Your task to perform on an android device: Open Yahoo.com Image 0: 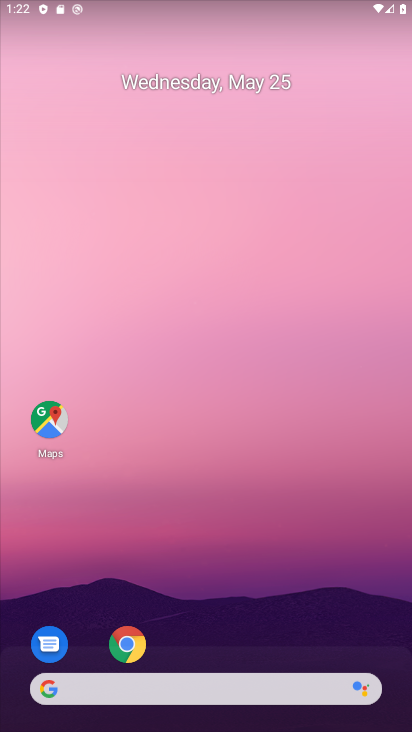
Step 0: drag from (367, 589) to (369, 270)
Your task to perform on an android device: Open Yahoo.com Image 1: 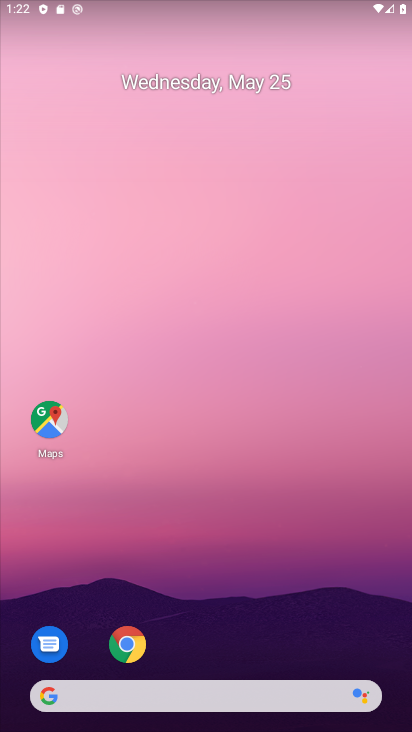
Step 1: drag from (367, 608) to (357, 323)
Your task to perform on an android device: Open Yahoo.com Image 2: 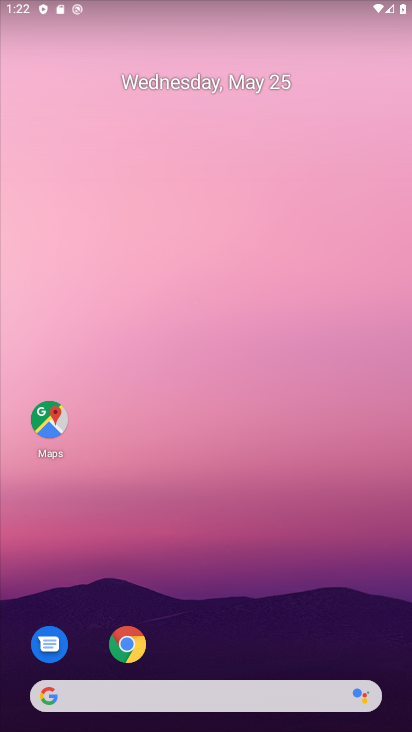
Step 2: drag from (362, 627) to (361, 266)
Your task to perform on an android device: Open Yahoo.com Image 3: 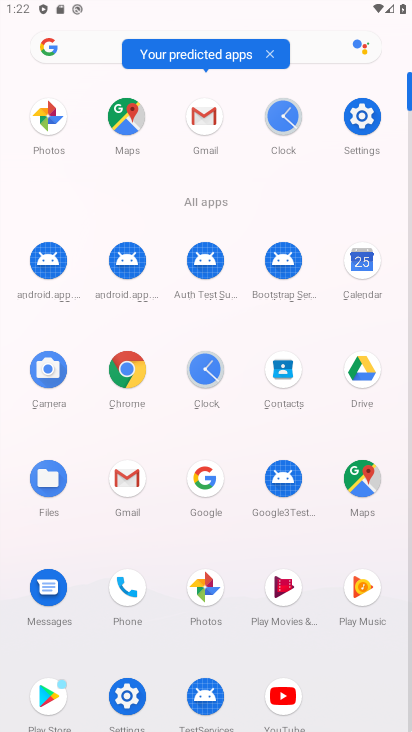
Step 3: click (141, 377)
Your task to perform on an android device: Open Yahoo.com Image 4: 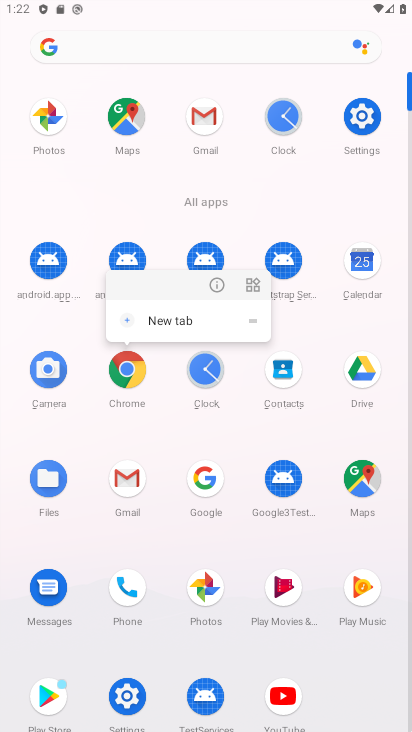
Step 4: click (133, 381)
Your task to perform on an android device: Open Yahoo.com Image 5: 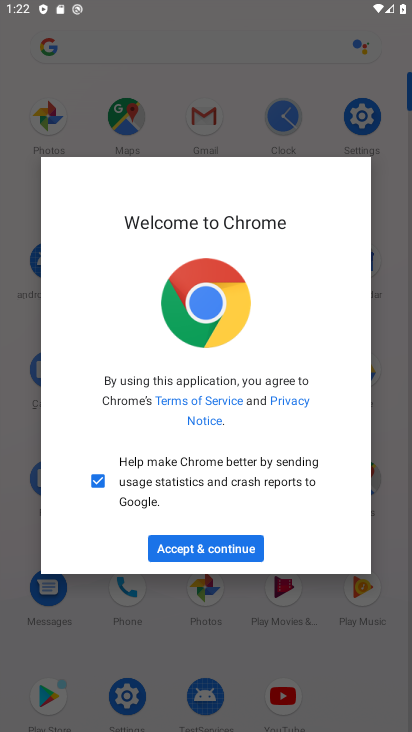
Step 5: click (192, 549)
Your task to perform on an android device: Open Yahoo.com Image 6: 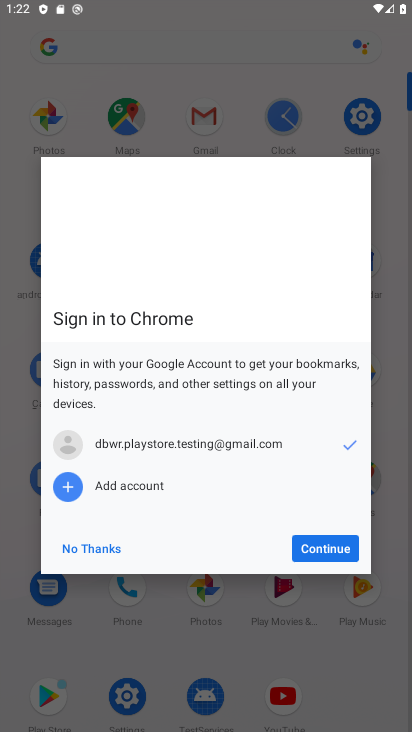
Step 6: click (331, 549)
Your task to perform on an android device: Open Yahoo.com Image 7: 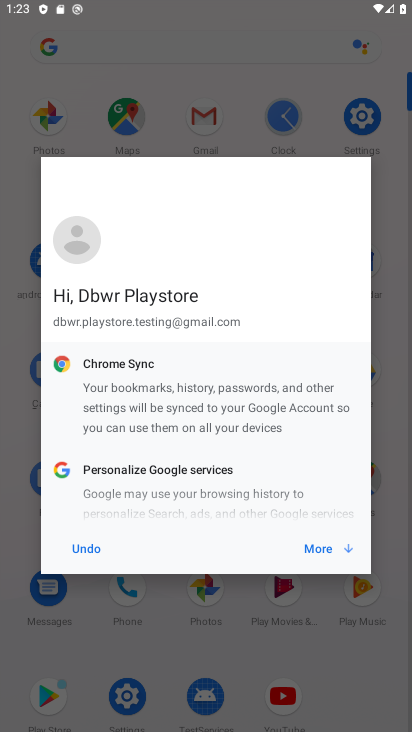
Step 7: click (331, 549)
Your task to perform on an android device: Open Yahoo.com Image 8: 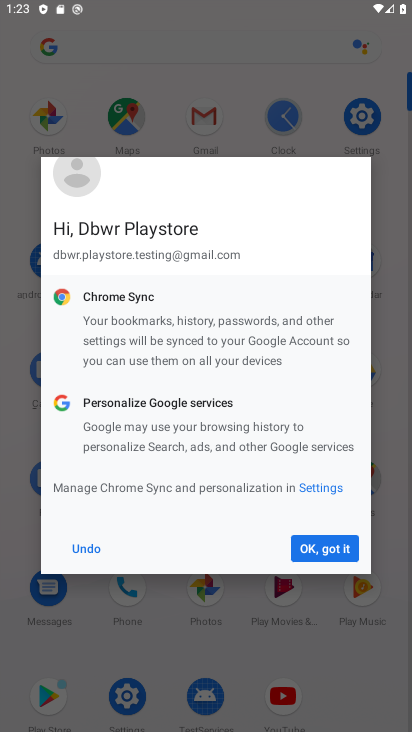
Step 8: click (331, 549)
Your task to perform on an android device: Open Yahoo.com Image 9: 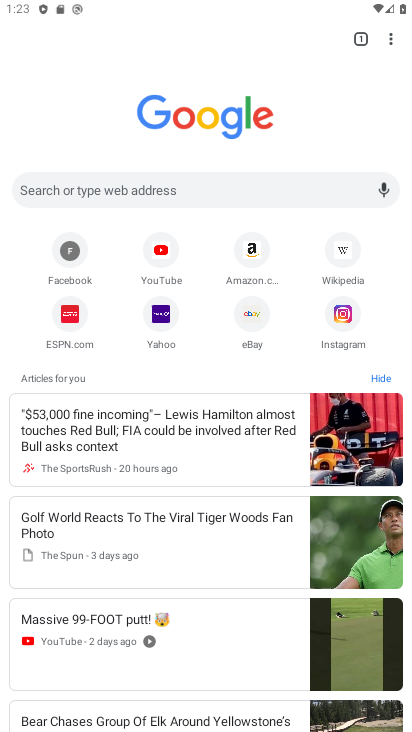
Step 9: click (170, 332)
Your task to perform on an android device: Open Yahoo.com Image 10: 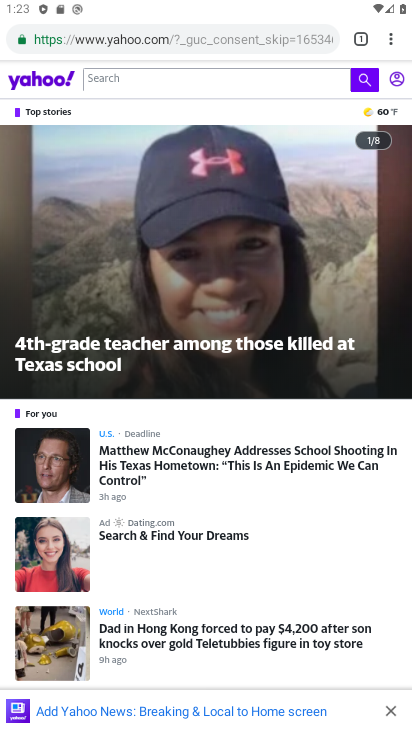
Step 10: task complete